Your task to perform on an android device: Open Reddit.com Image 0: 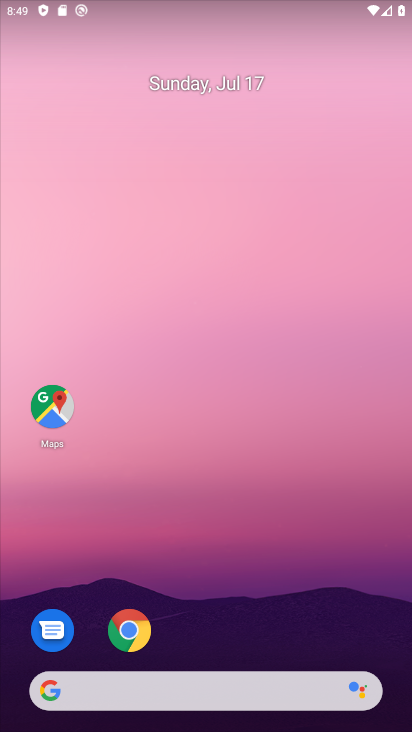
Step 0: drag from (274, 642) to (273, 139)
Your task to perform on an android device: Open Reddit.com Image 1: 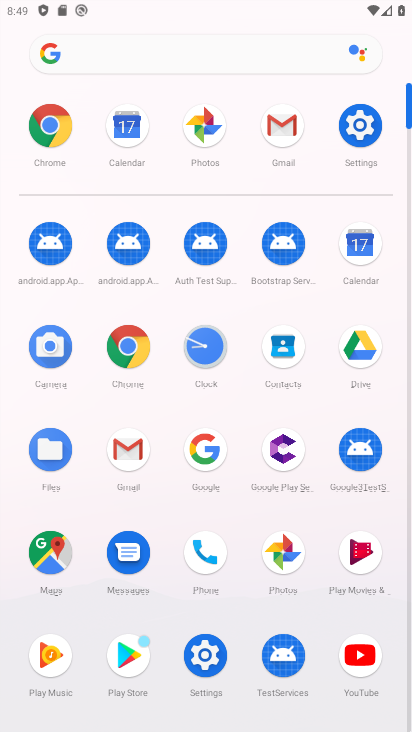
Step 1: click (63, 129)
Your task to perform on an android device: Open Reddit.com Image 2: 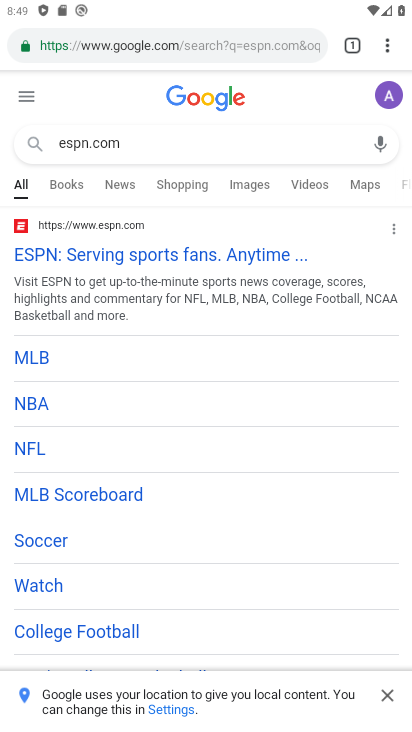
Step 2: click (202, 33)
Your task to perform on an android device: Open Reddit.com Image 3: 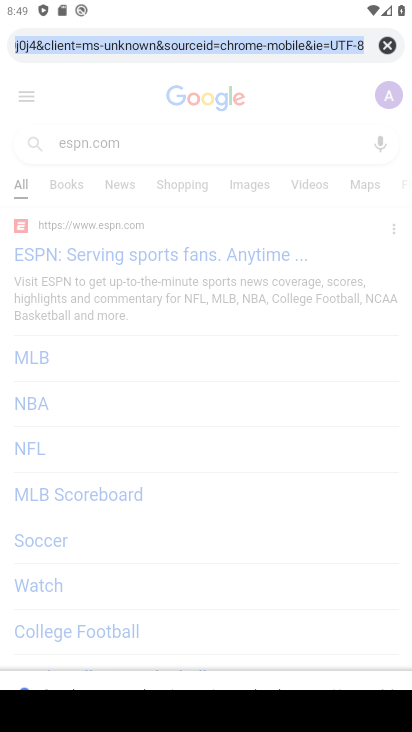
Step 3: type "reddit"
Your task to perform on an android device: Open Reddit.com Image 4: 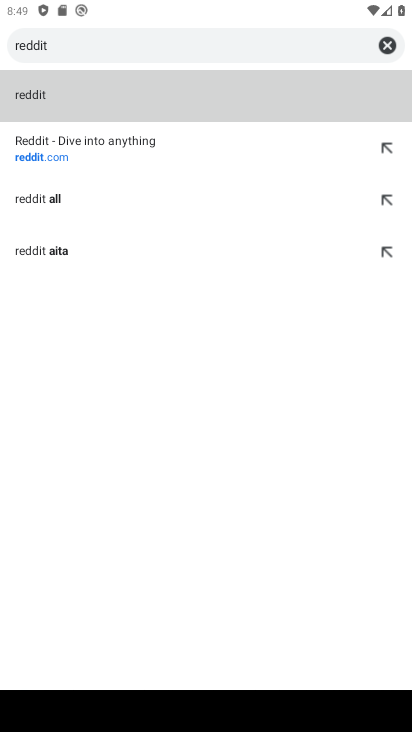
Step 4: click (53, 160)
Your task to perform on an android device: Open Reddit.com Image 5: 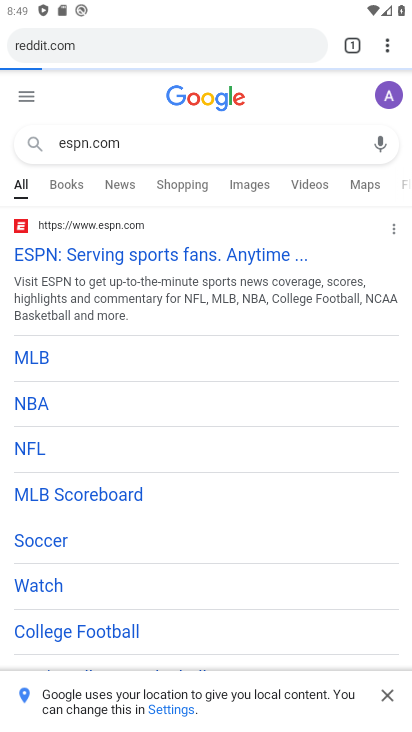
Step 5: task complete